Your task to perform on an android device: toggle airplane mode Image 0: 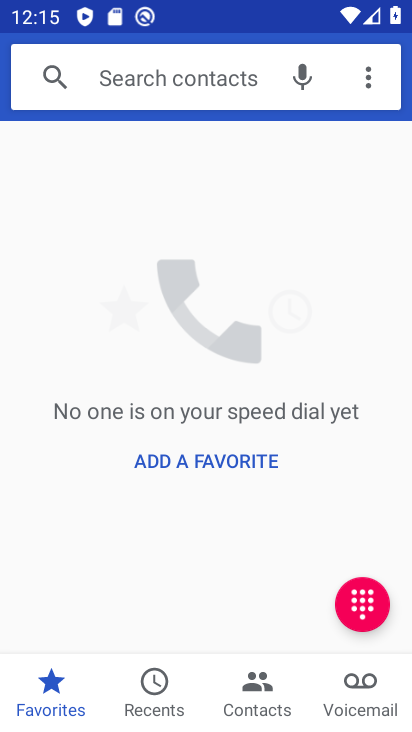
Step 0: press home button
Your task to perform on an android device: toggle airplane mode Image 1: 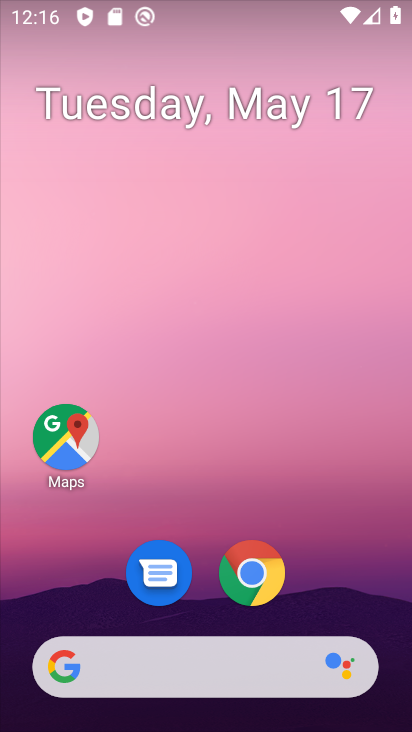
Step 1: drag from (222, 10) to (255, 391)
Your task to perform on an android device: toggle airplane mode Image 2: 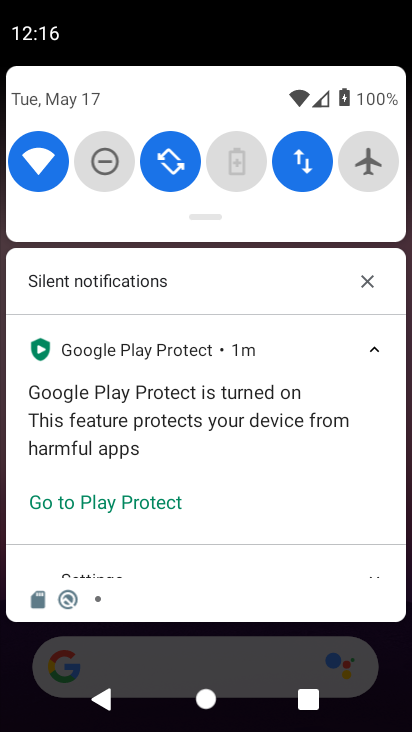
Step 2: click (373, 158)
Your task to perform on an android device: toggle airplane mode Image 3: 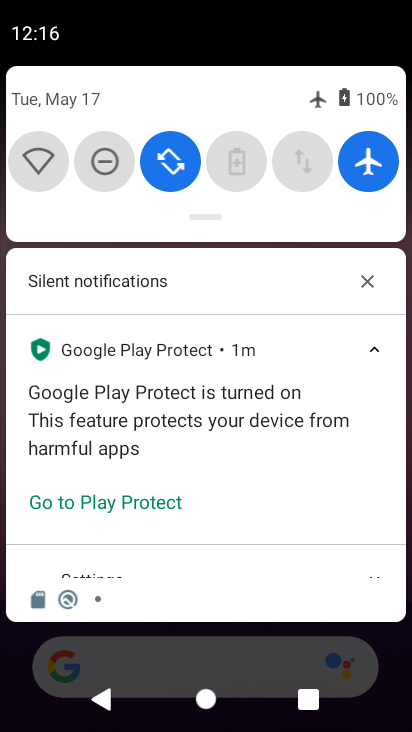
Step 3: task complete